Your task to perform on an android device: Clear all items from cart on walmart. Image 0: 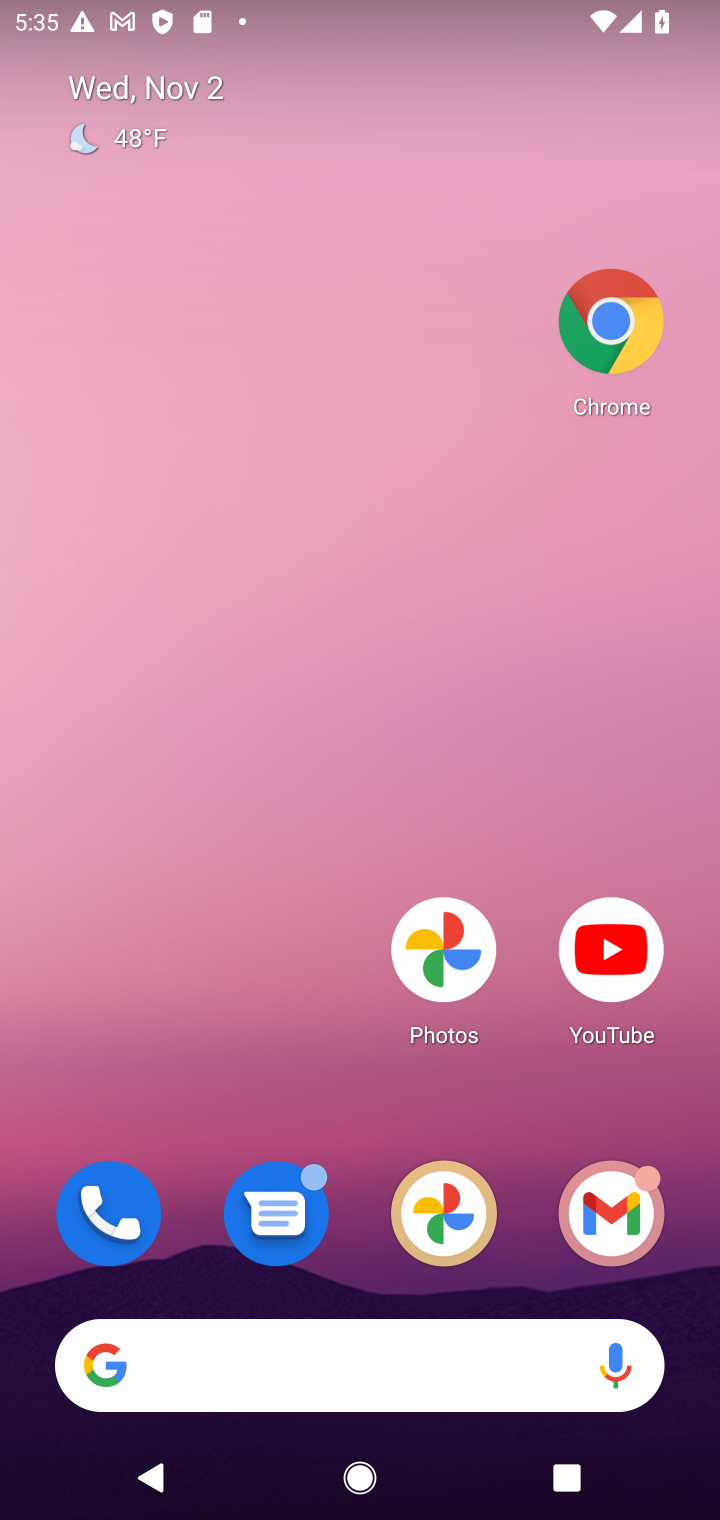
Step 0: click (318, 739)
Your task to perform on an android device: Clear all items from cart on walmart. Image 1: 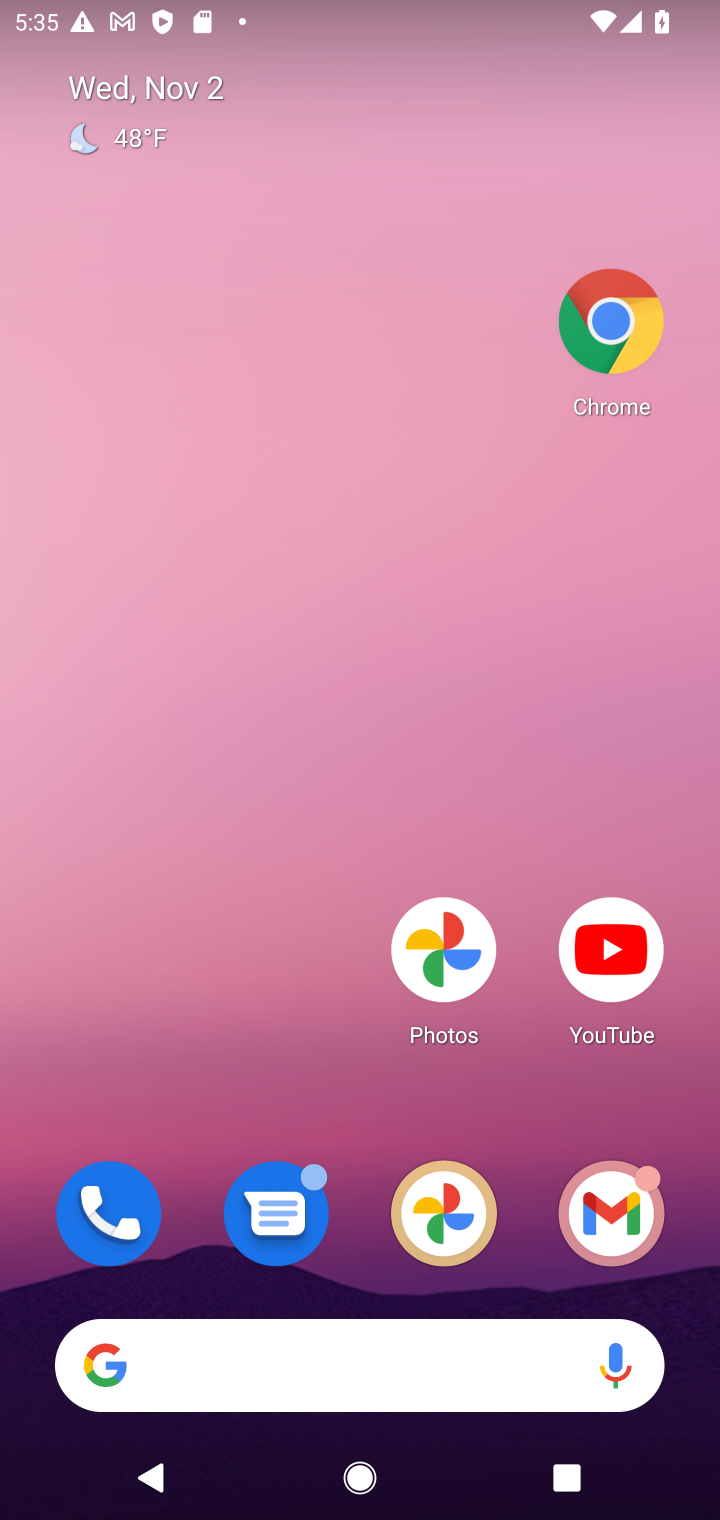
Step 1: click (318, 739)
Your task to perform on an android device: Clear all items from cart on walmart. Image 2: 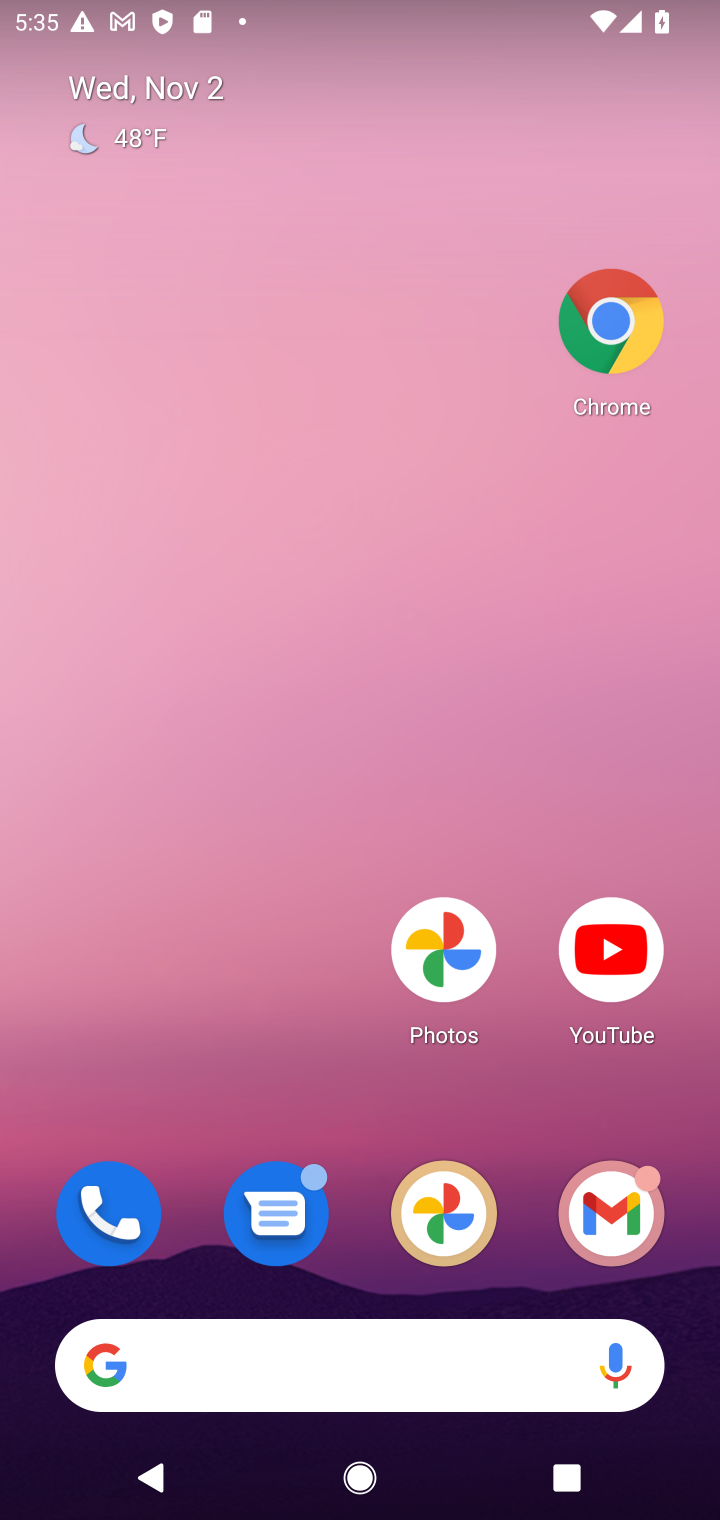
Step 2: drag from (206, 1250) to (251, 256)
Your task to perform on an android device: Clear all items from cart on walmart. Image 3: 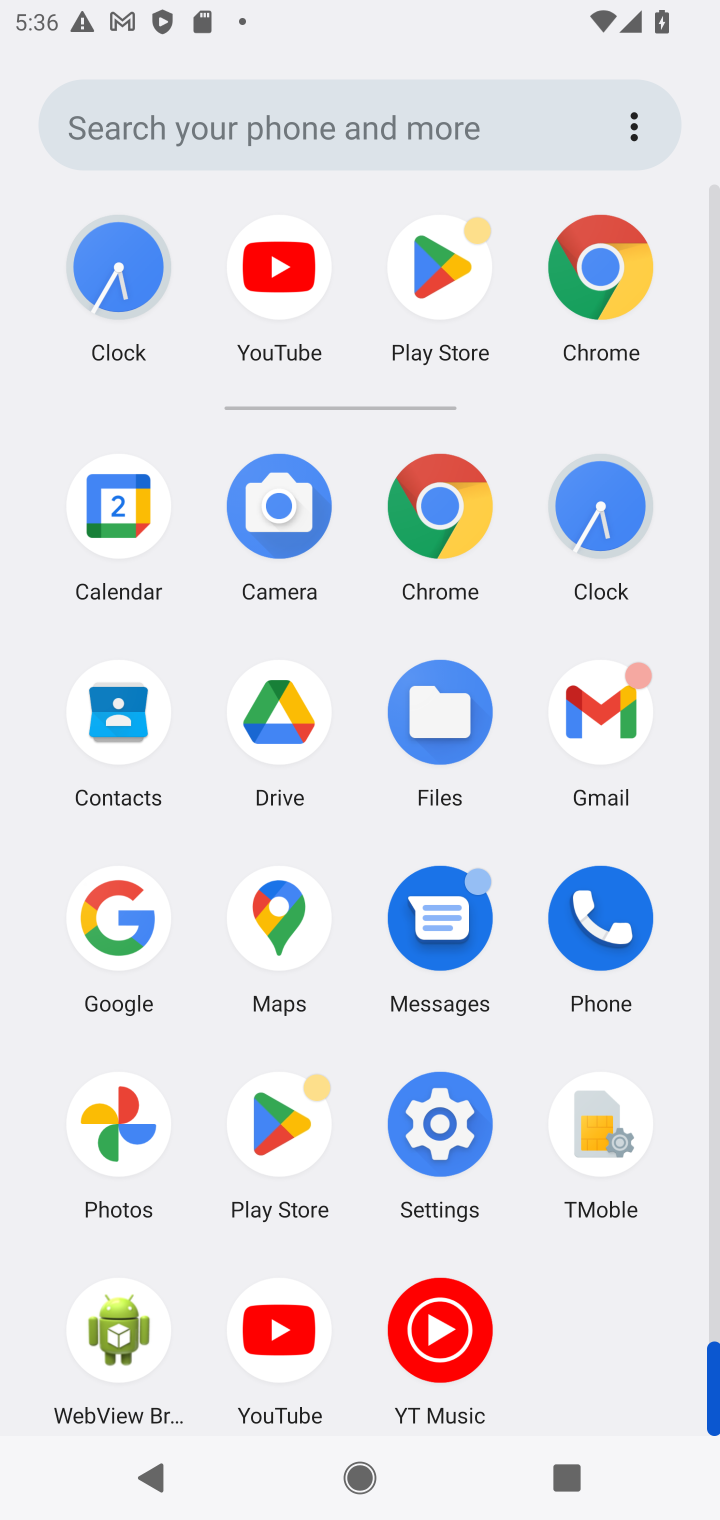
Step 3: click (136, 961)
Your task to perform on an android device: Clear all items from cart on walmart. Image 4: 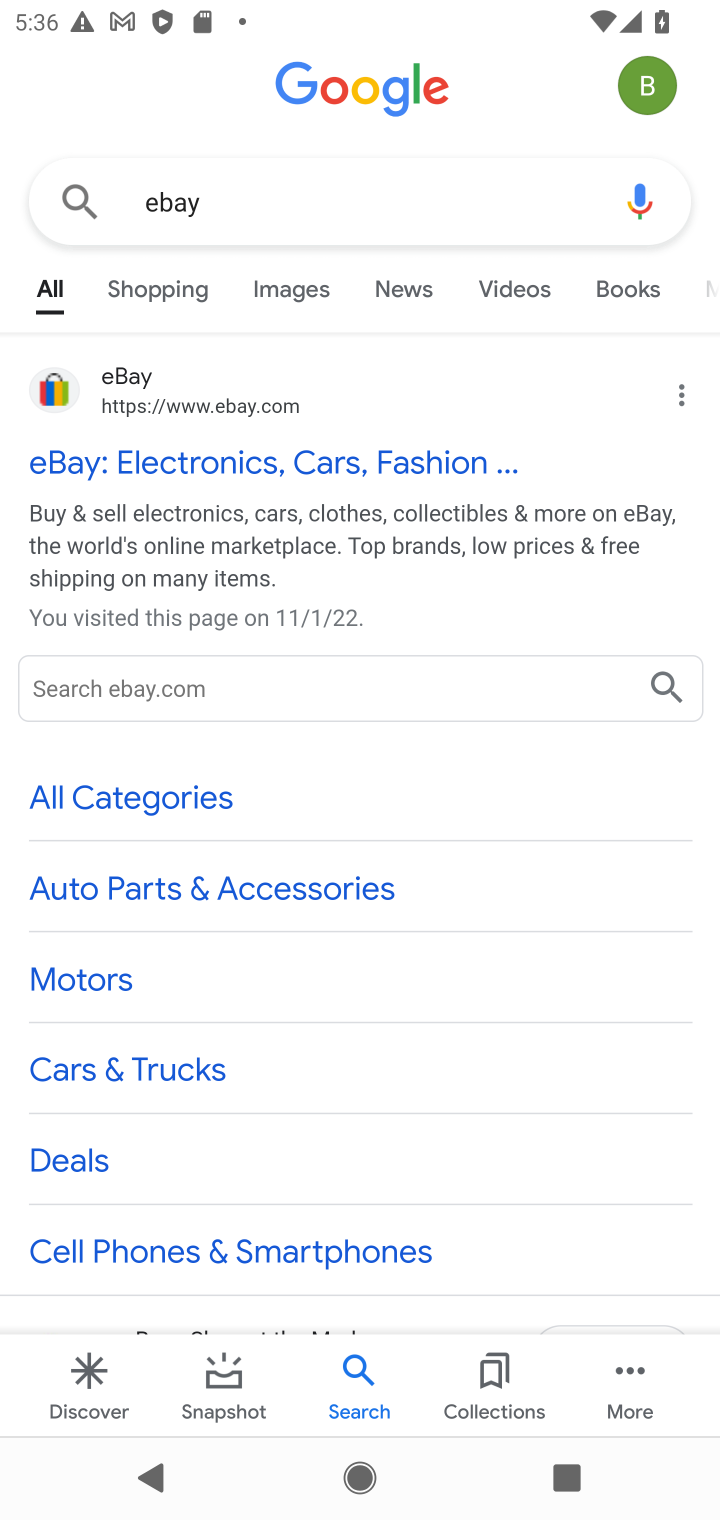
Step 4: click (589, 219)
Your task to perform on an android device: Clear all items from cart on walmart. Image 5: 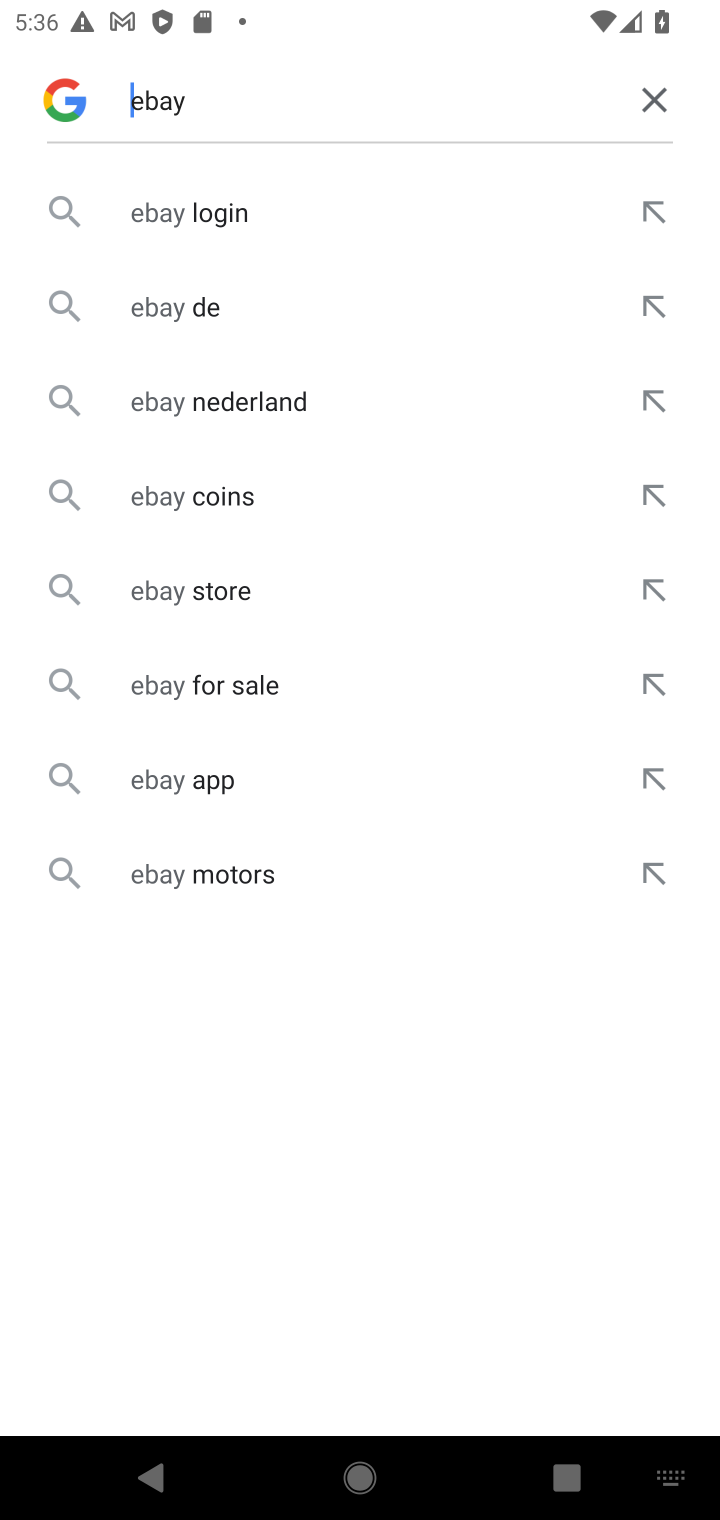
Step 5: click (666, 96)
Your task to perform on an android device: Clear all items from cart on walmart. Image 6: 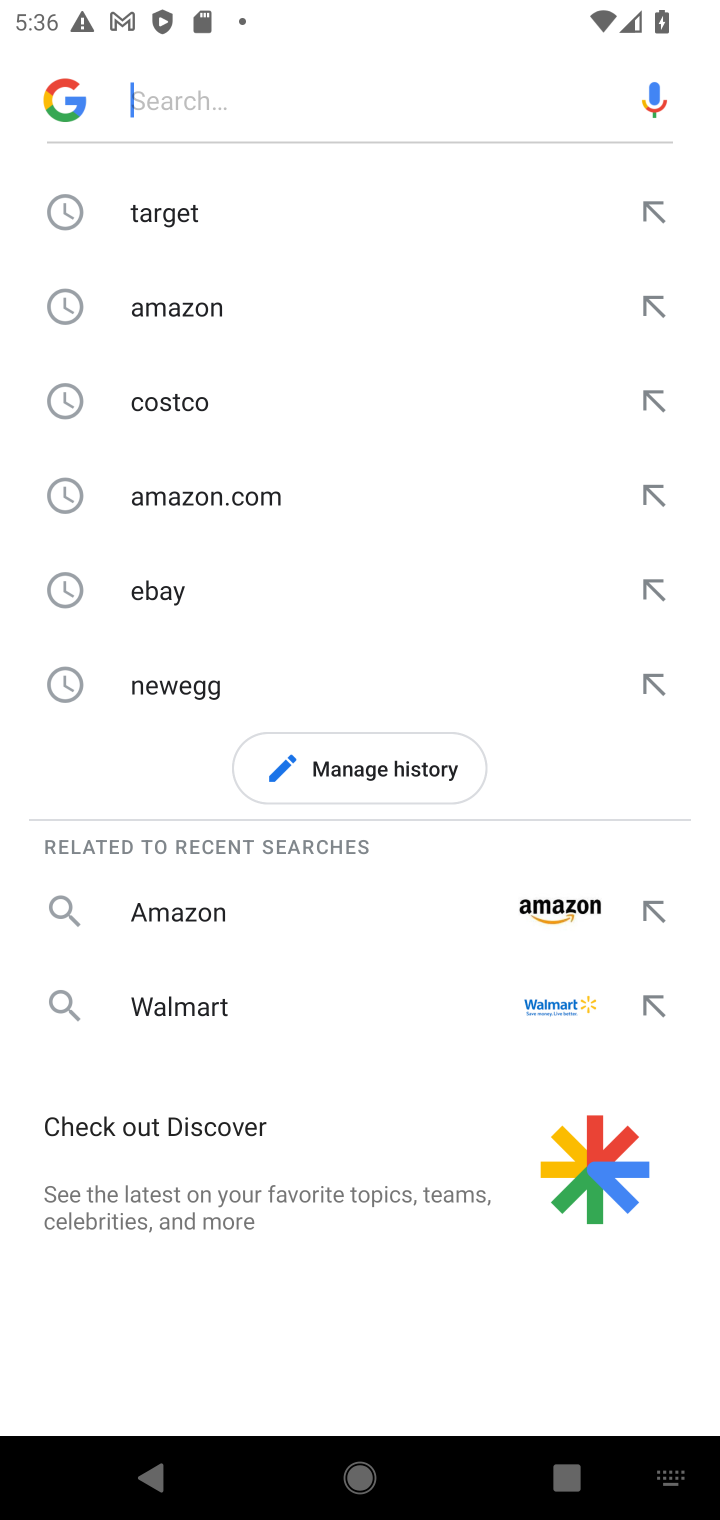
Step 6: type "walmart"
Your task to perform on an android device: Clear all items from cart on walmart. Image 7: 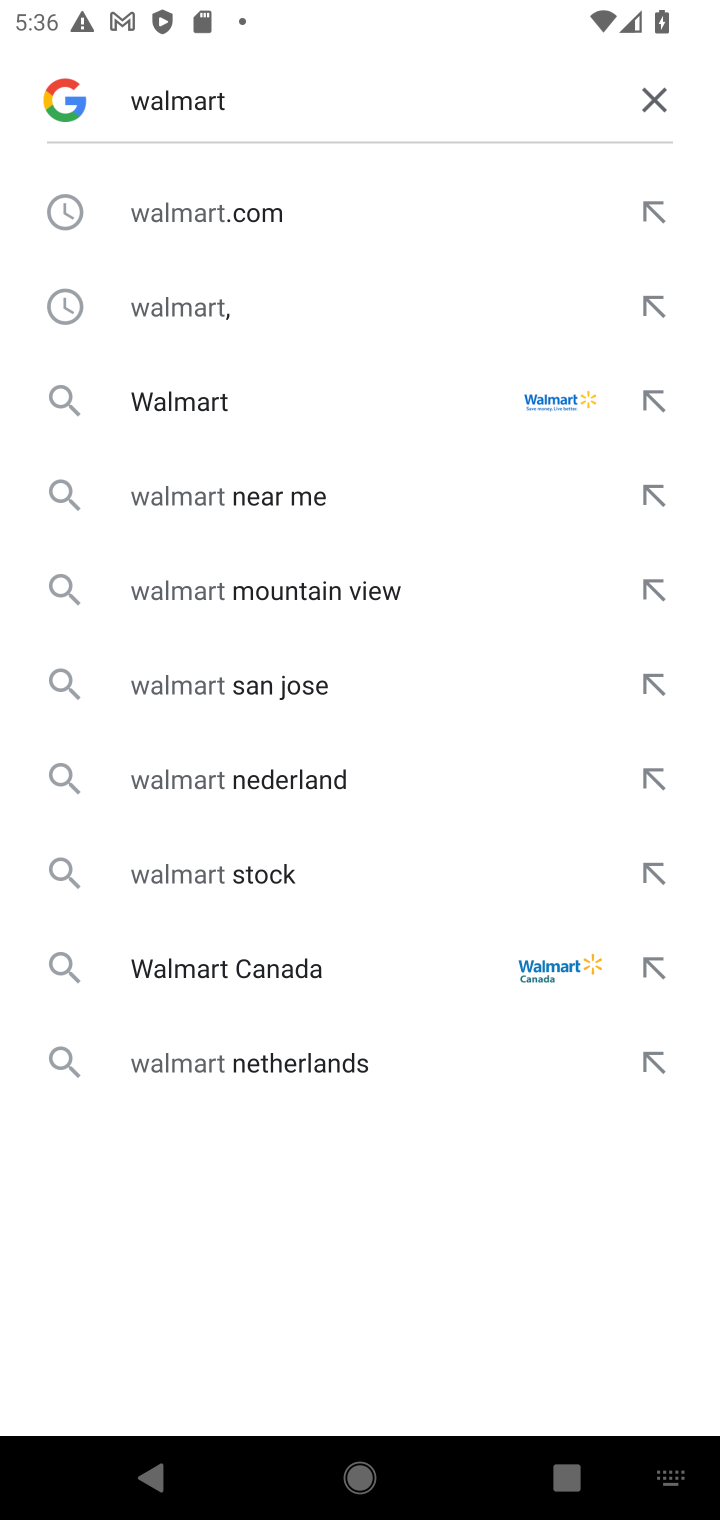
Step 7: click (235, 301)
Your task to perform on an android device: Clear all items from cart on walmart. Image 8: 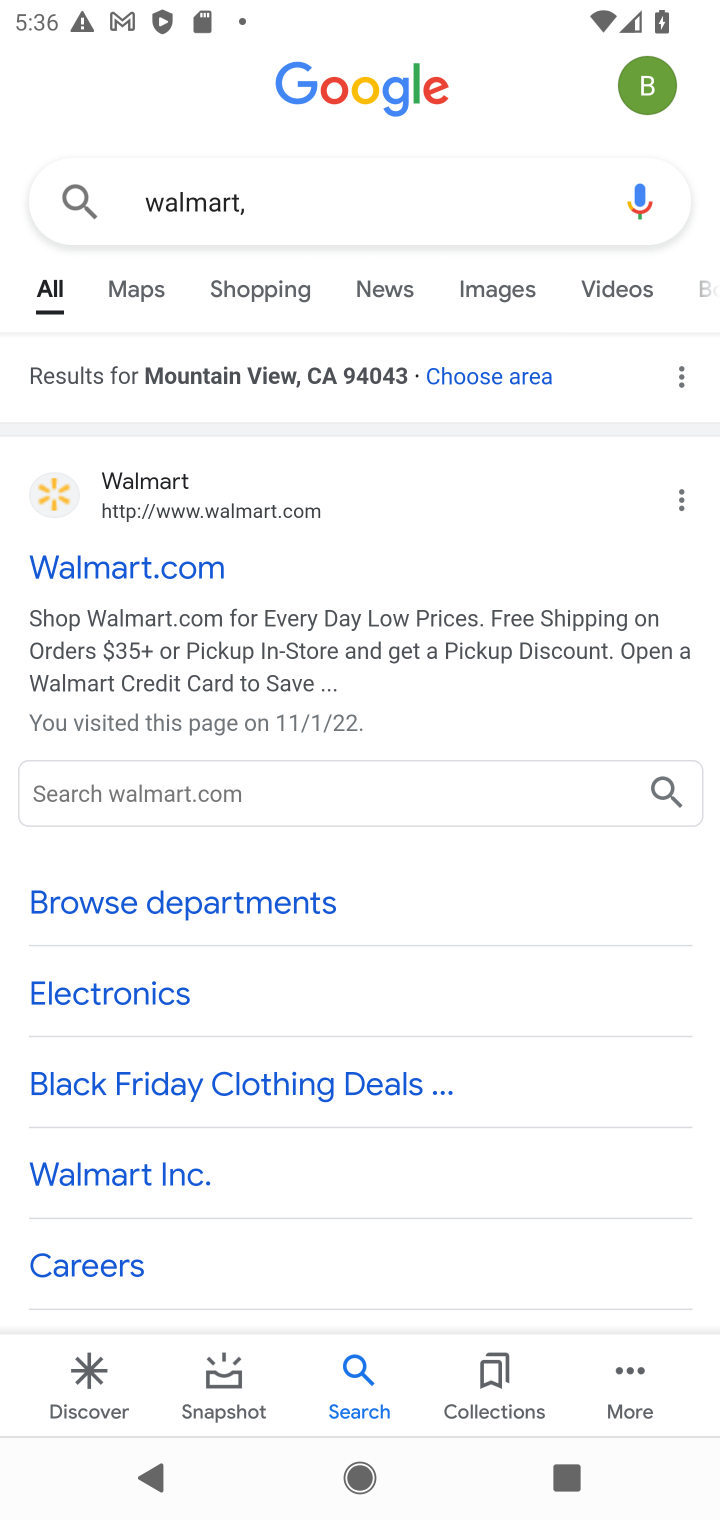
Step 8: click (128, 572)
Your task to perform on an android device: Clear all items from cart on walmart. Image 9: 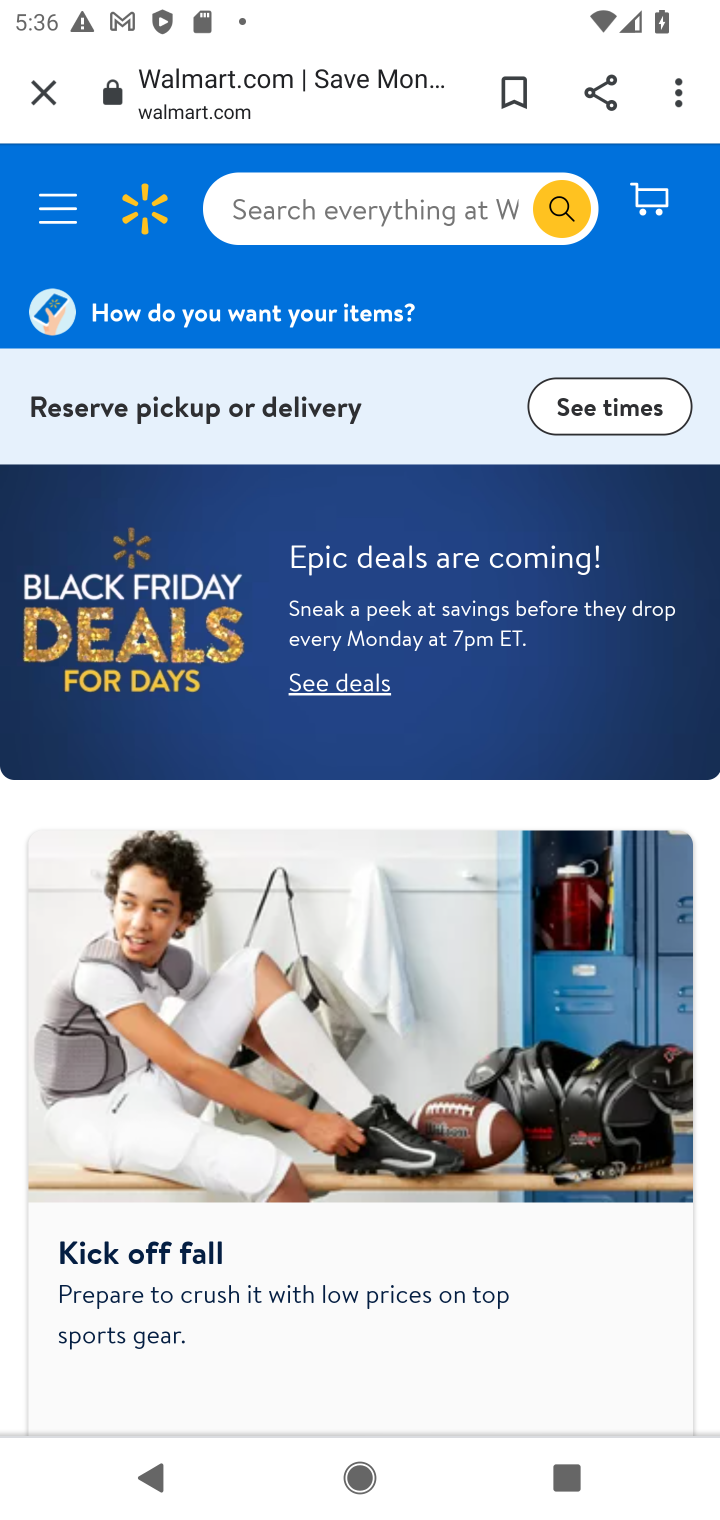
Step 9: click (358, 209)
Your task to perform on an android device: Clear all items from cart on walmart. Image 10: 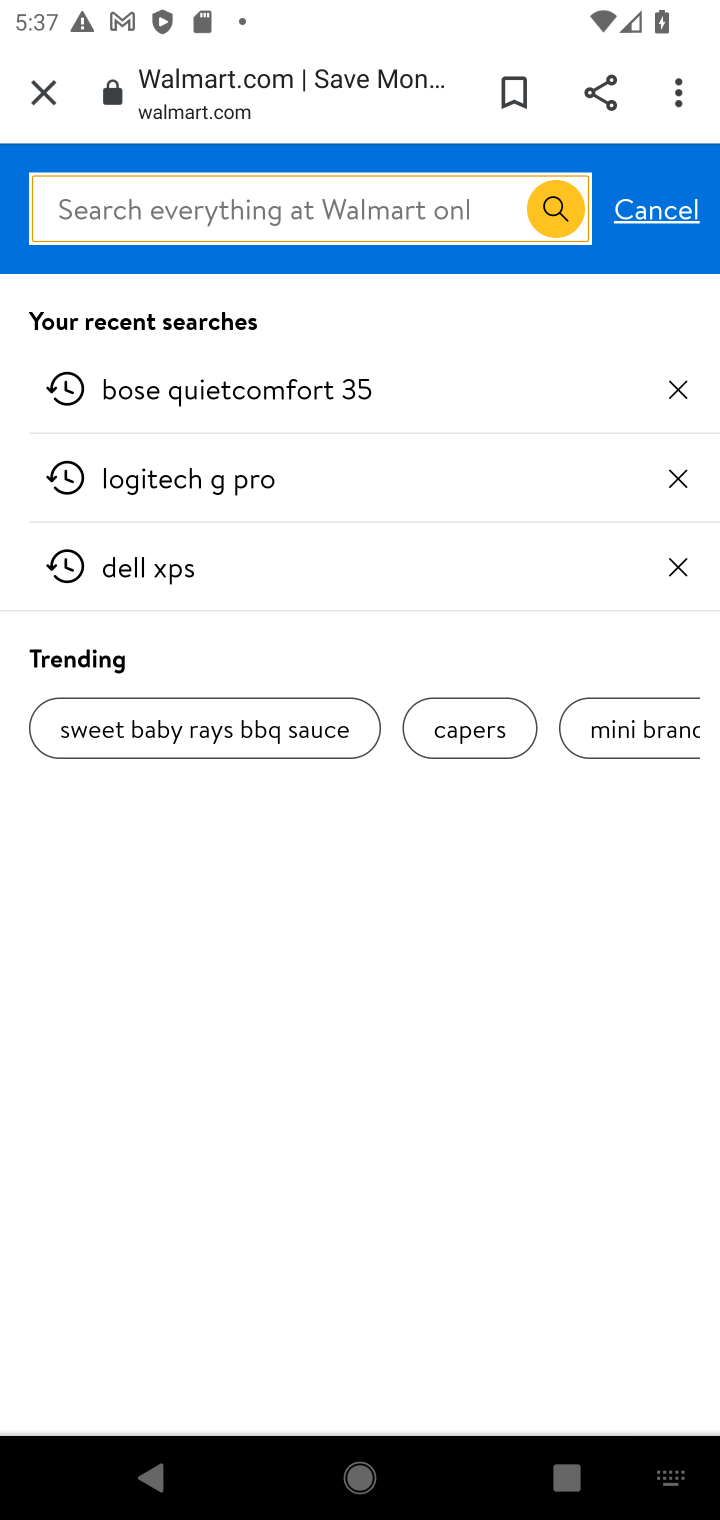
Step 10: click (642, 177)
Your task to perform on an android device: Clear all items from cart on walmart. Image 11: 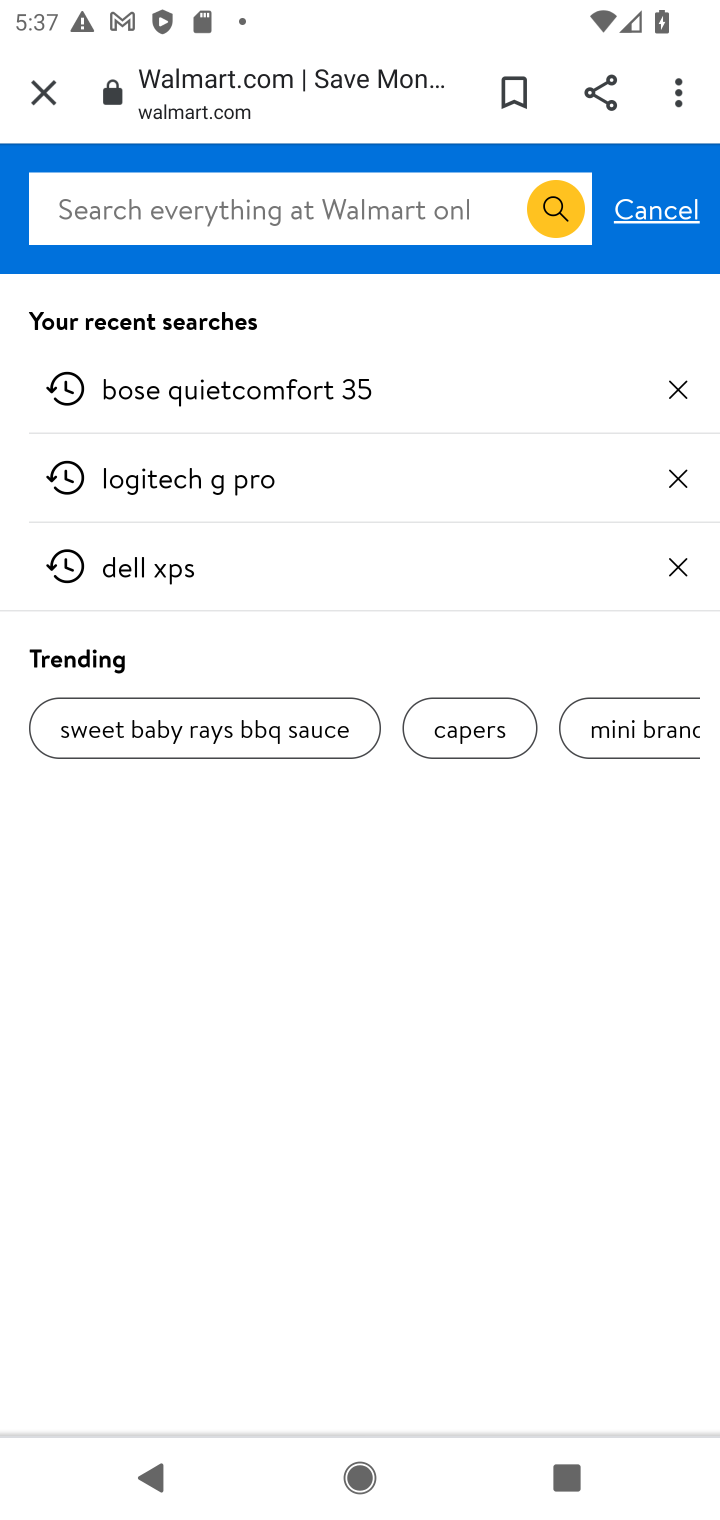
Step 11: click (672, 236)
Your task to perform on an android device: Clear all items from cart on walmart. Image 12: 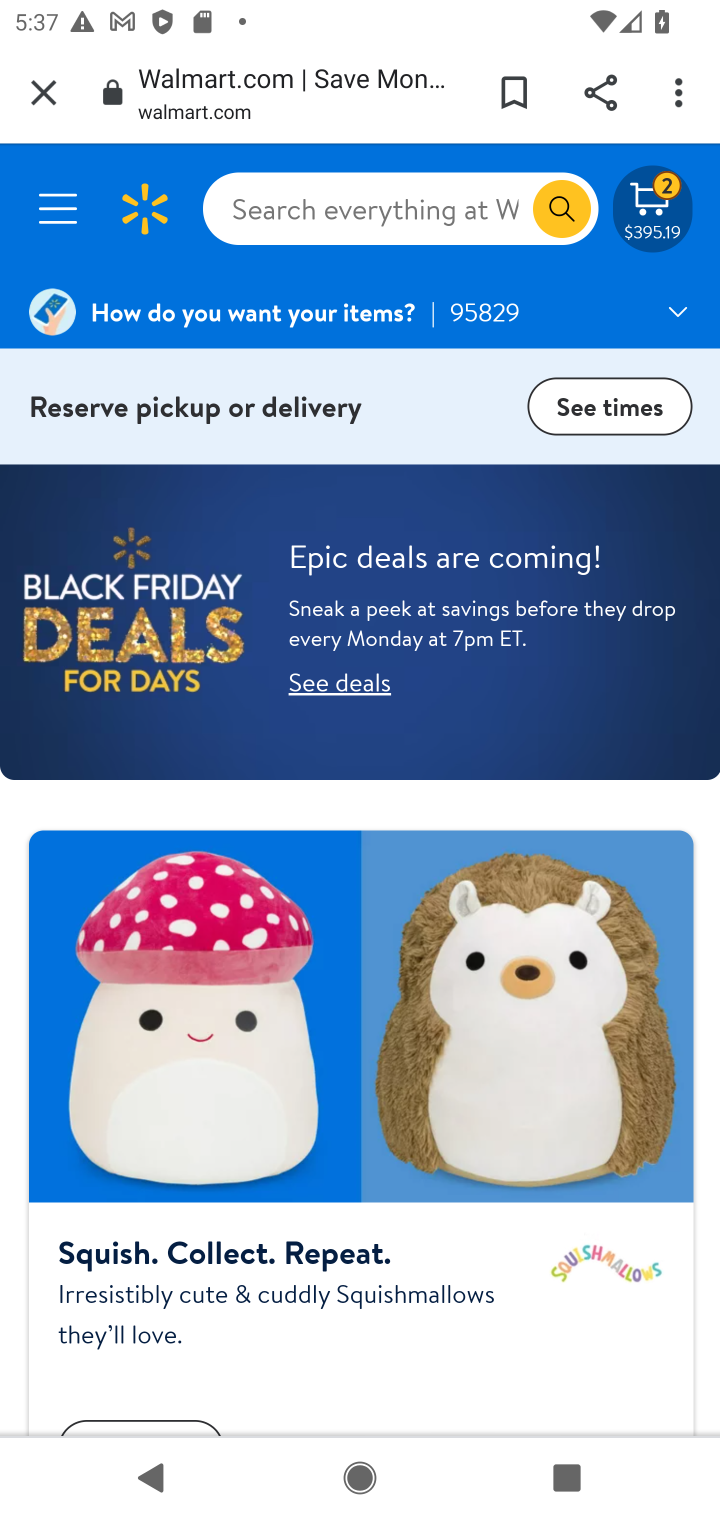
Step 12: click (652, 222)
Your task to perform on an android device: Clear all items from cart on walmart. Image 13: 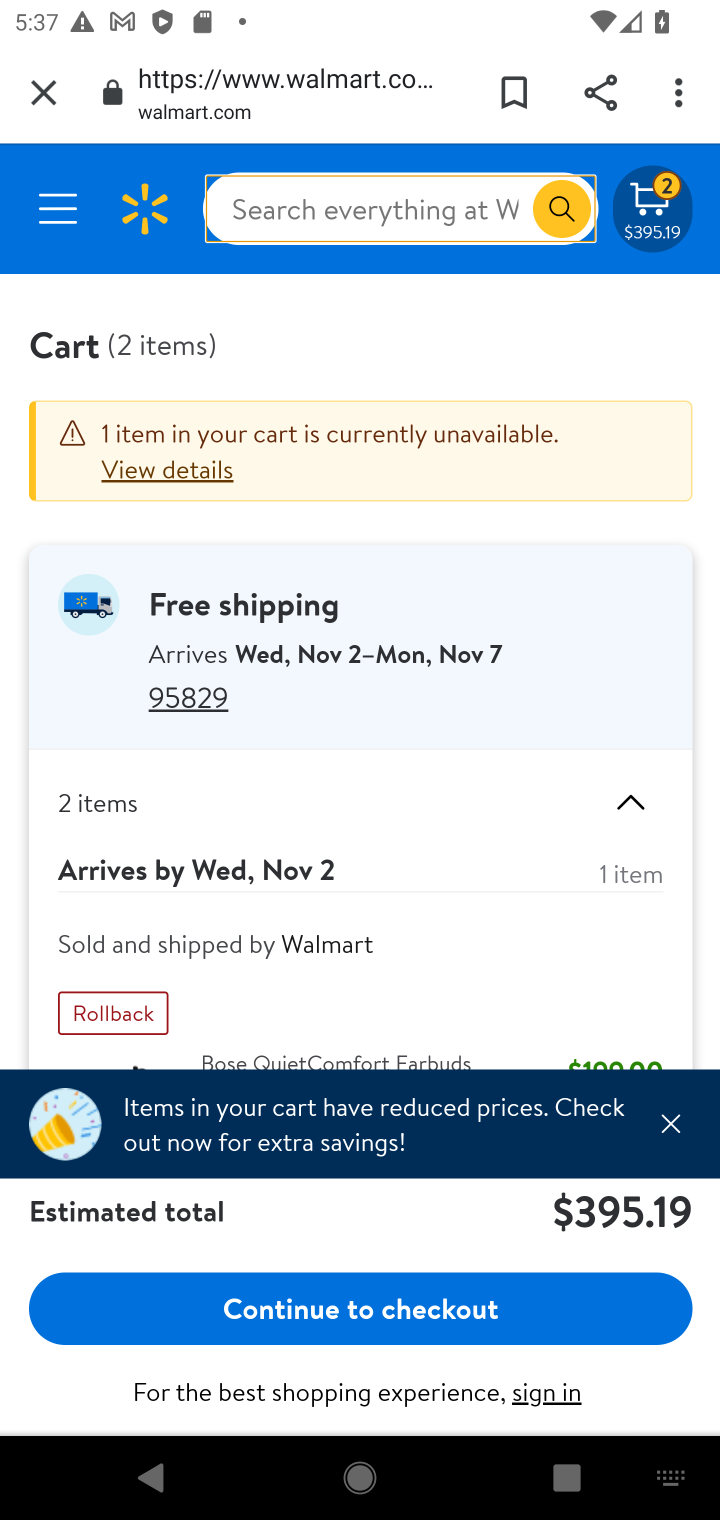
Step 13: drag from (466, 951) to (471, 585)
Your task to perform on an android device: Clear all items from cart on walmart. Image 14: 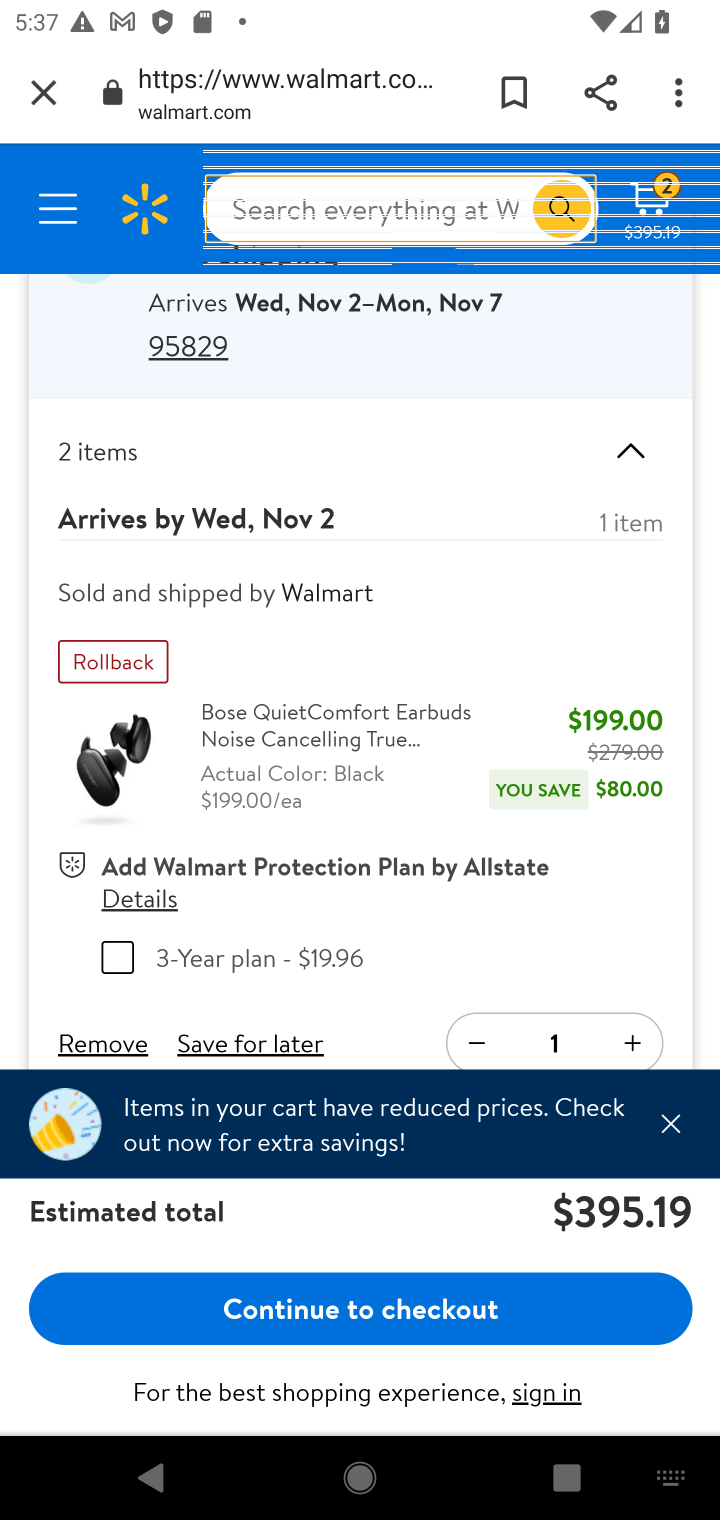
Step 14: drag from (451, 923) to (432, 642)
Your task to perform on an android device: Clear all items from cart on walmart. Image 15: 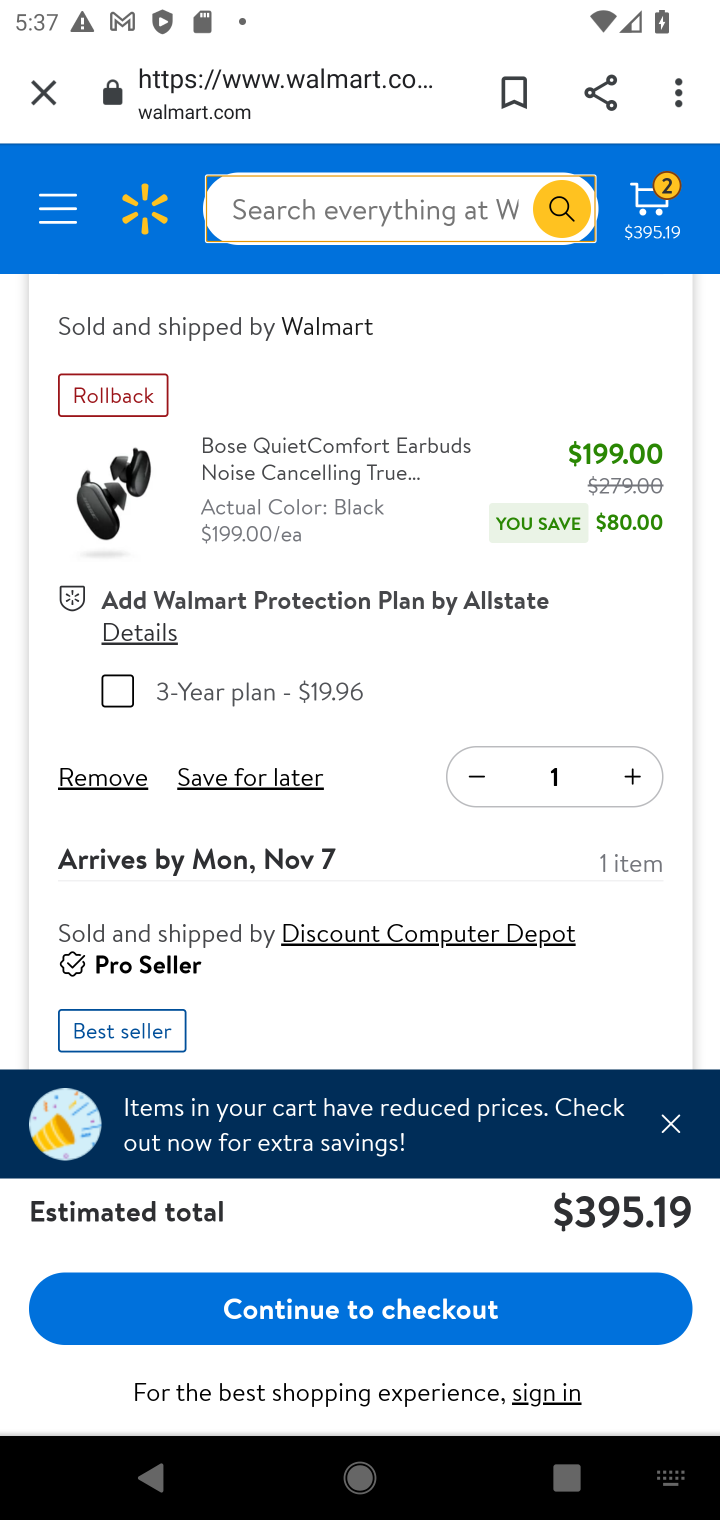
Step 15: click (679, 1134)
Your task to perform on an android device: Clear all items from cart on walmart. Image 16: 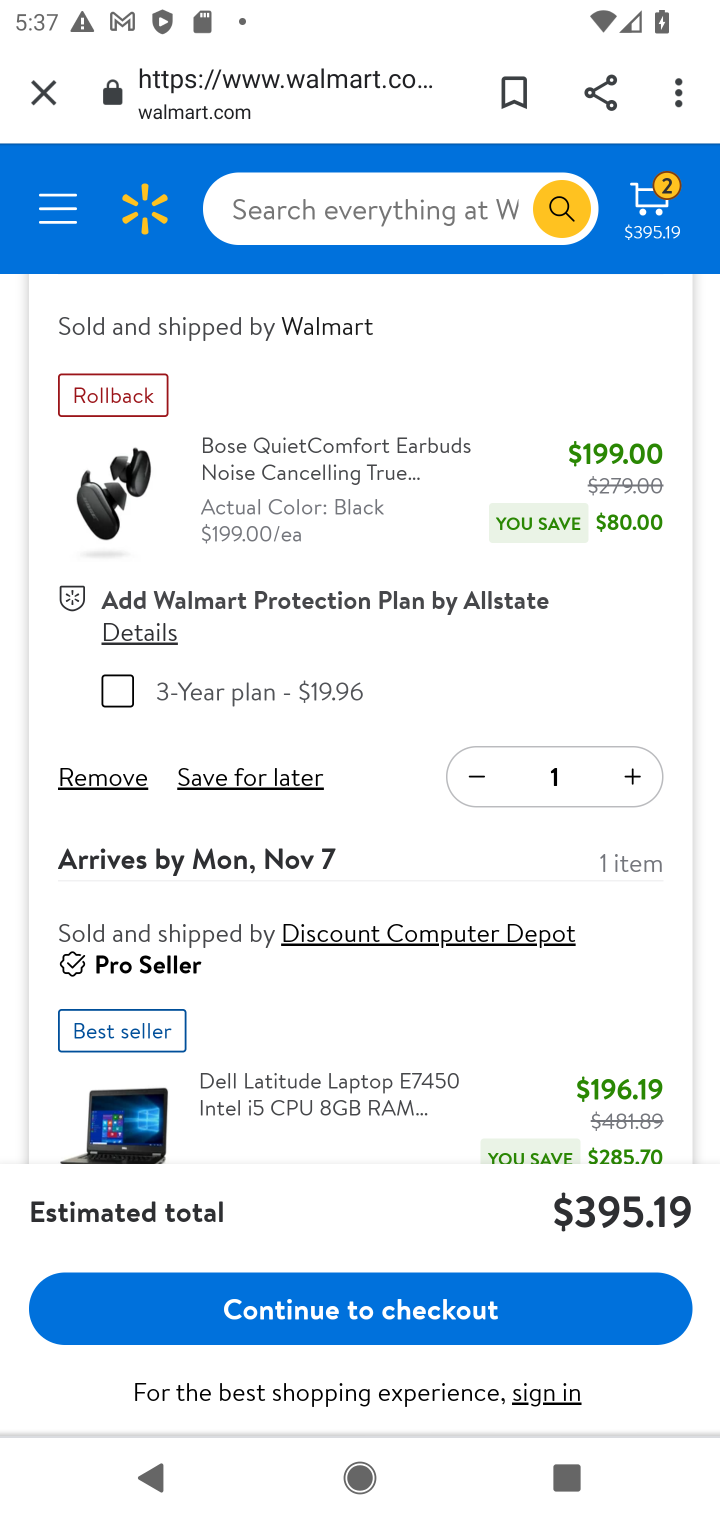
Step 16: drag from (511, 1102) to (521, 629)
Your task to perform on an android device: Clear all items from cart on walmart. Image 17: 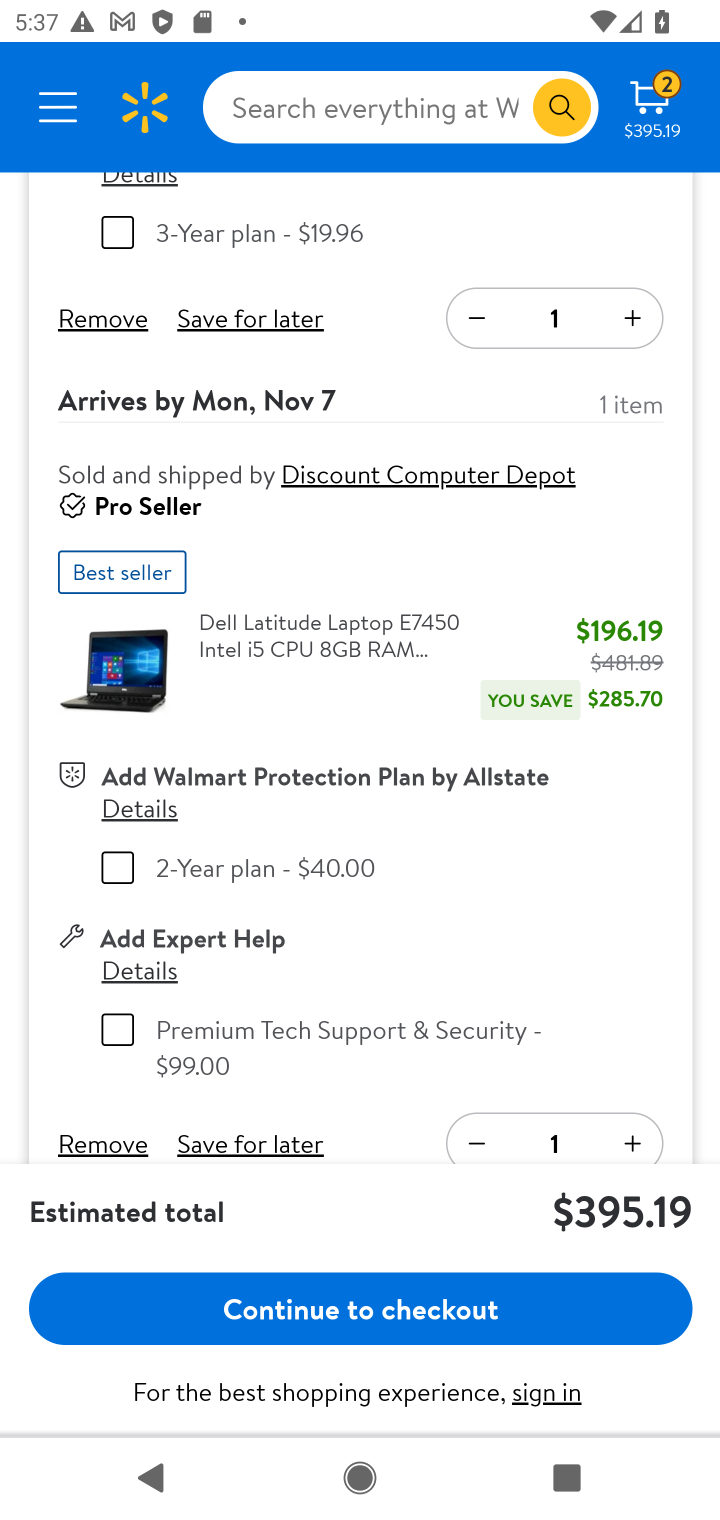
Step 17: click (476, 313)
Your task to perform on an android device: Clear all items from cart on walmart. Image 18: 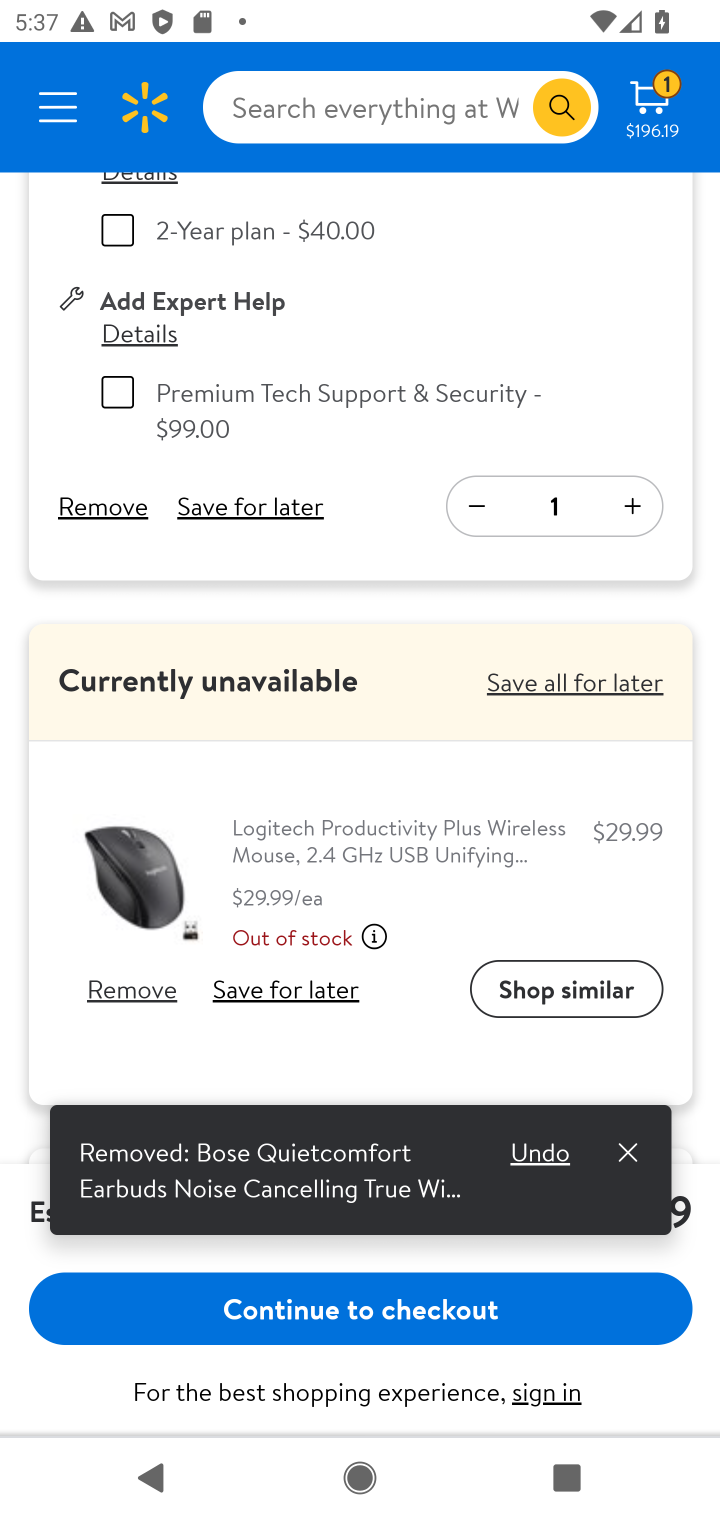
Step 18: click (480, 484)
Your task to perform on an android device: Clear all items from cart on walmart. Image 19: 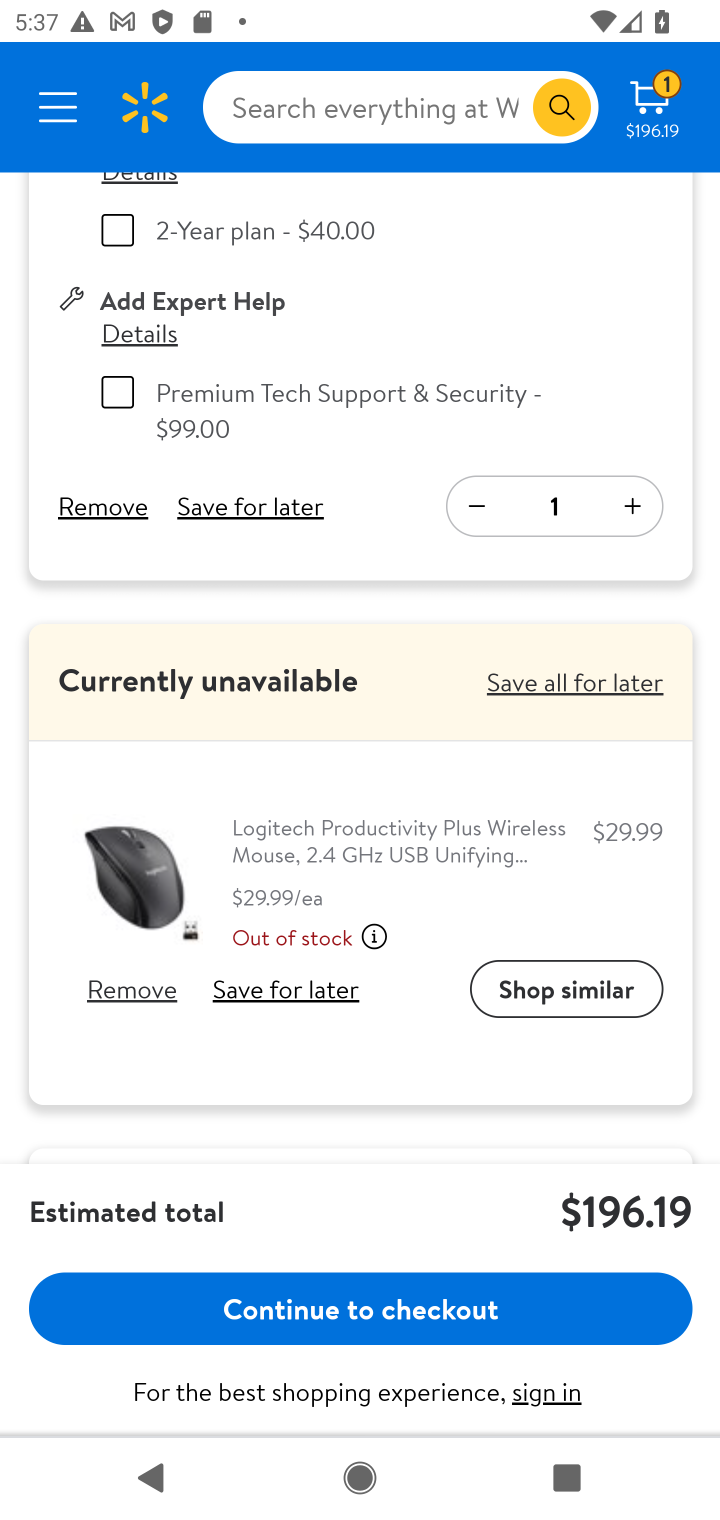
Step 19: click (476, 519)
Your task to perform on an android device: Clear all items from cart on walmart. Image 20: 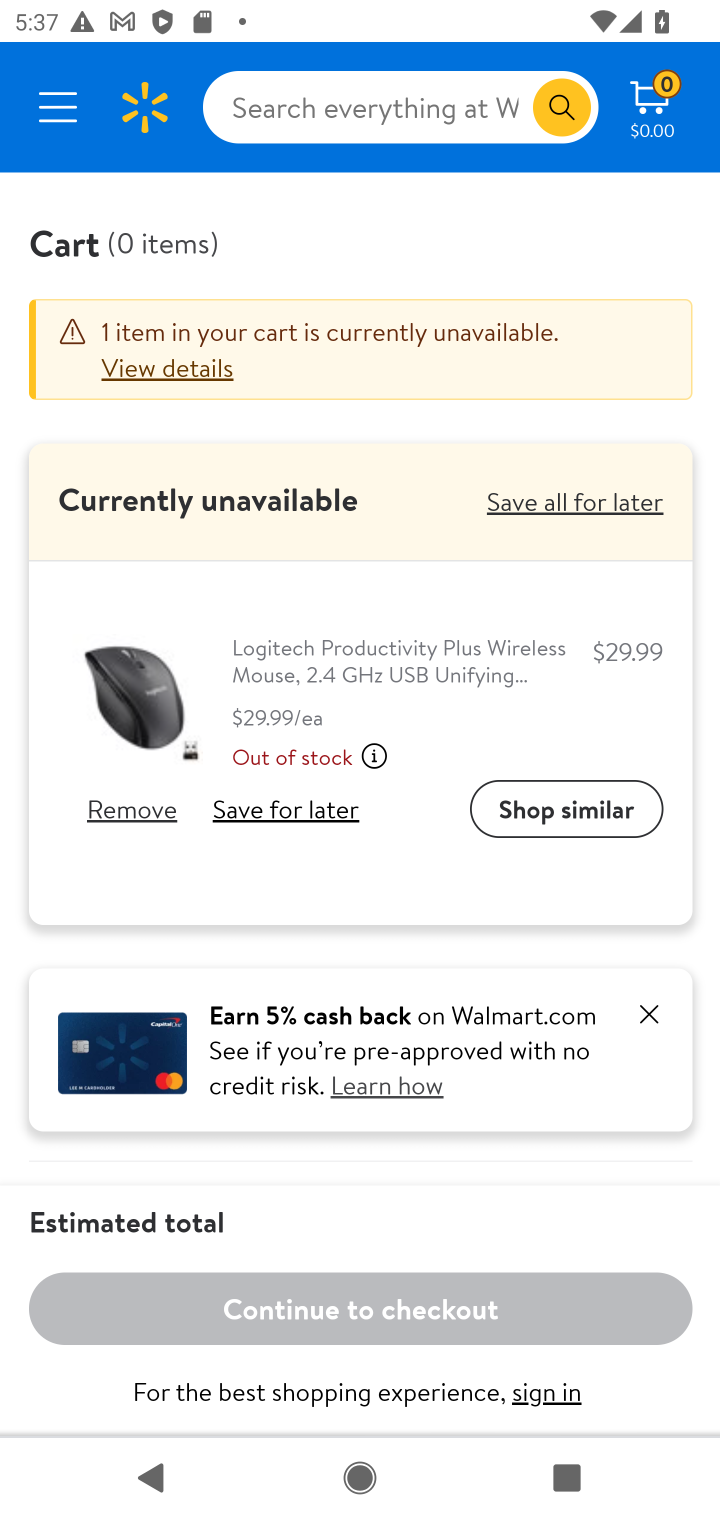
Step 20: task complete